Your task to perform on an android device: Search for pizza restaurants on Maps Image 0: 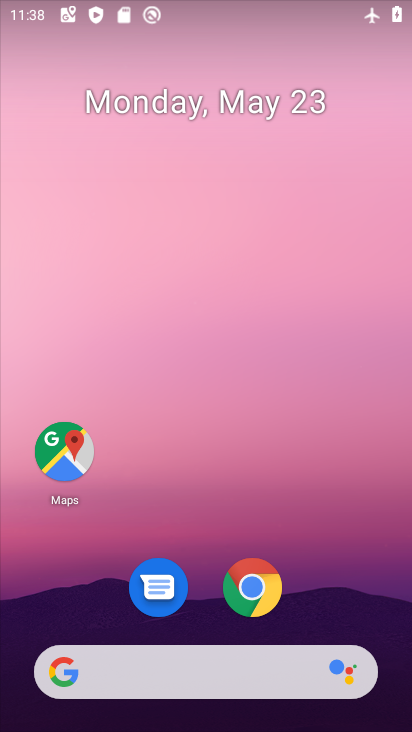
Step 0: click (79, 437)
Your task to perform on an android device: Search for pizza restaurants on Maps Image 1: 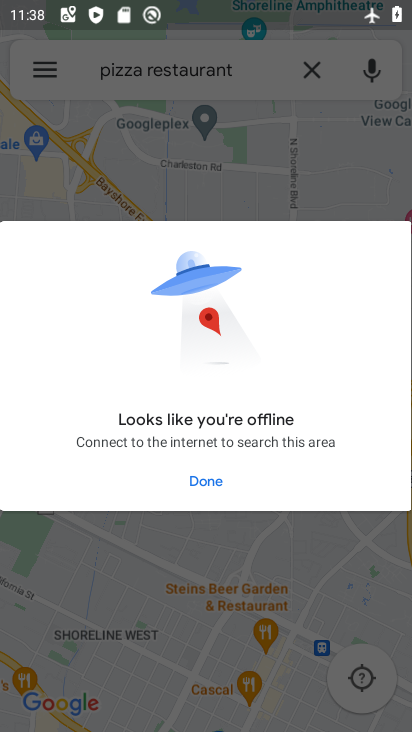
Step 1: click (203, 486)
Your task to perform on an android device: Search for pizza restaurants on Maps Image 2: 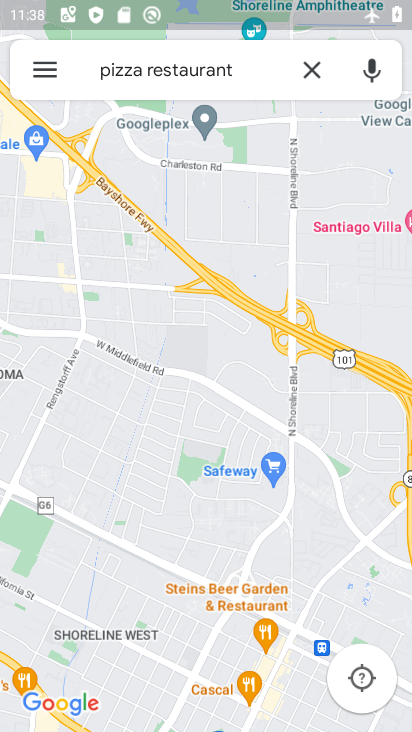
Step 2: task complete